Your task to perform on an android device: Clear all items from cart on target.com. Add razer nari to the cart on target.com Image 0: 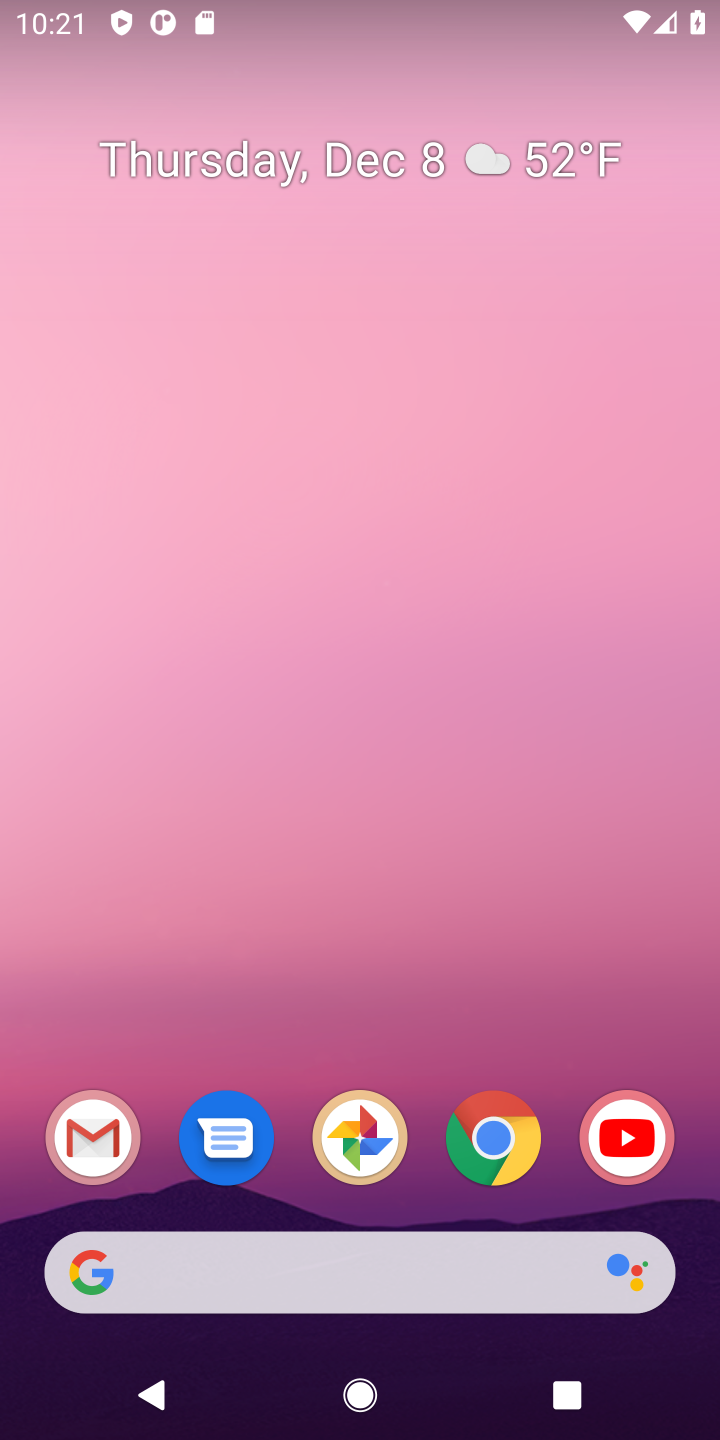
Step 0: click (500, 1131)
Your task to perform on an android device: Clear all items from cart on target.com. Add razer nari to the cart on target.com Image 1: 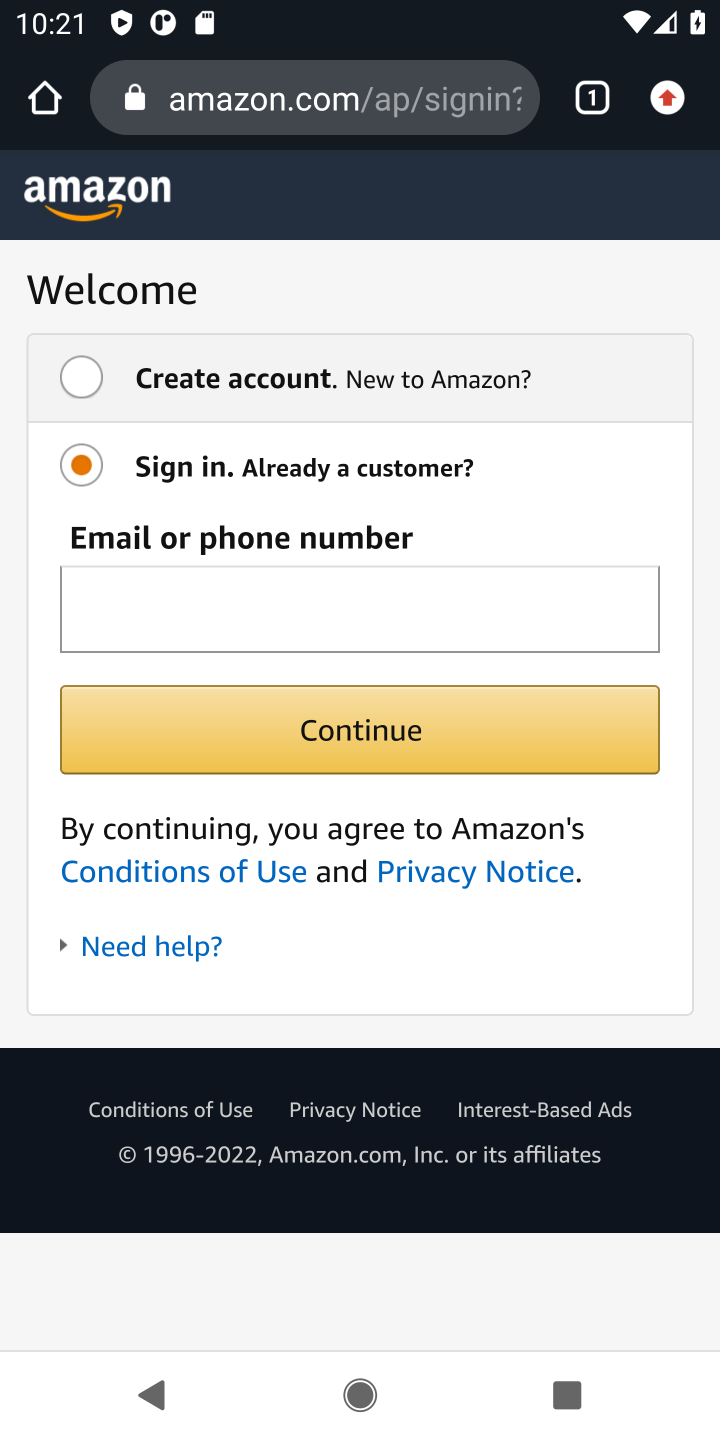
Step 1: click (469, 93)
Your task to perform on an android device: Clear all items from cart on target.com. Add razer nari to the cart on target.com Image 2: 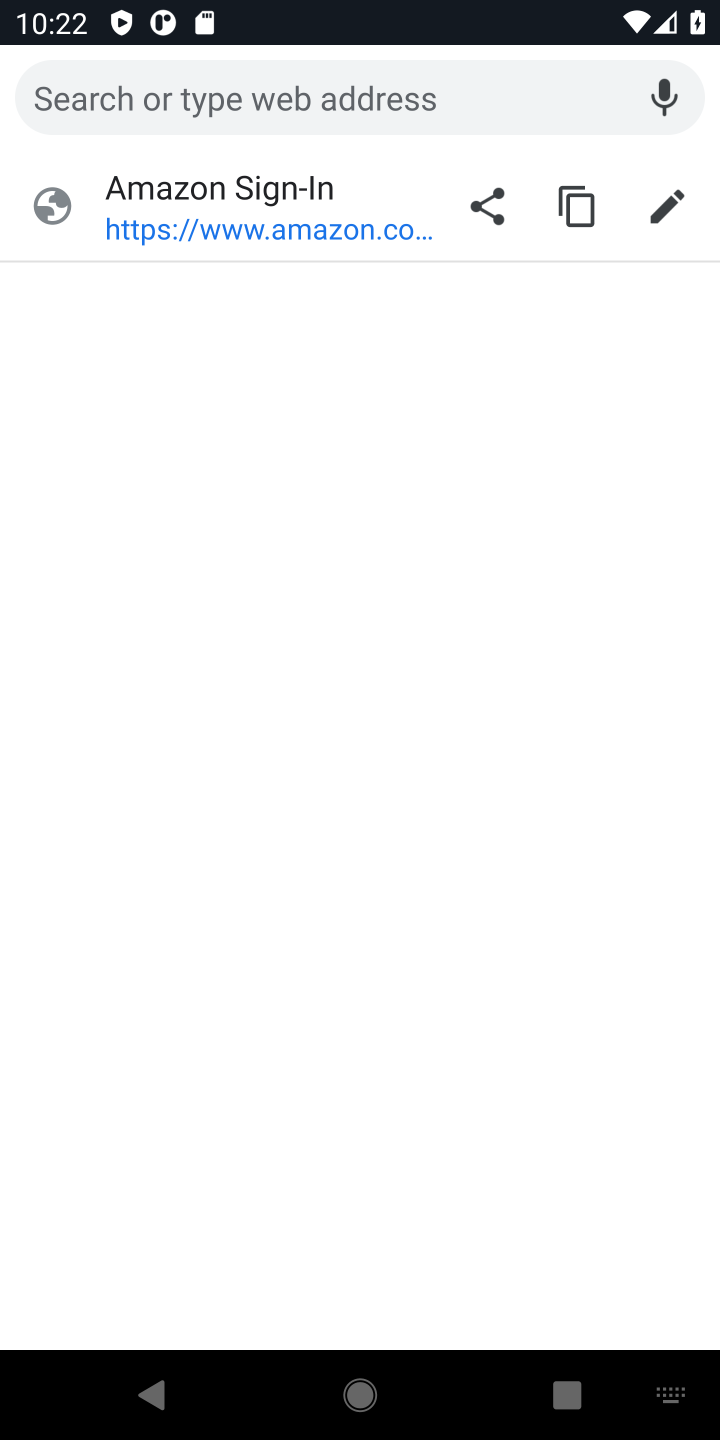
Step 2: type "target"
Your task to perform on an android device: Clear all items from cart on target.com. Add razer nari to the cart on target.com Image 3: 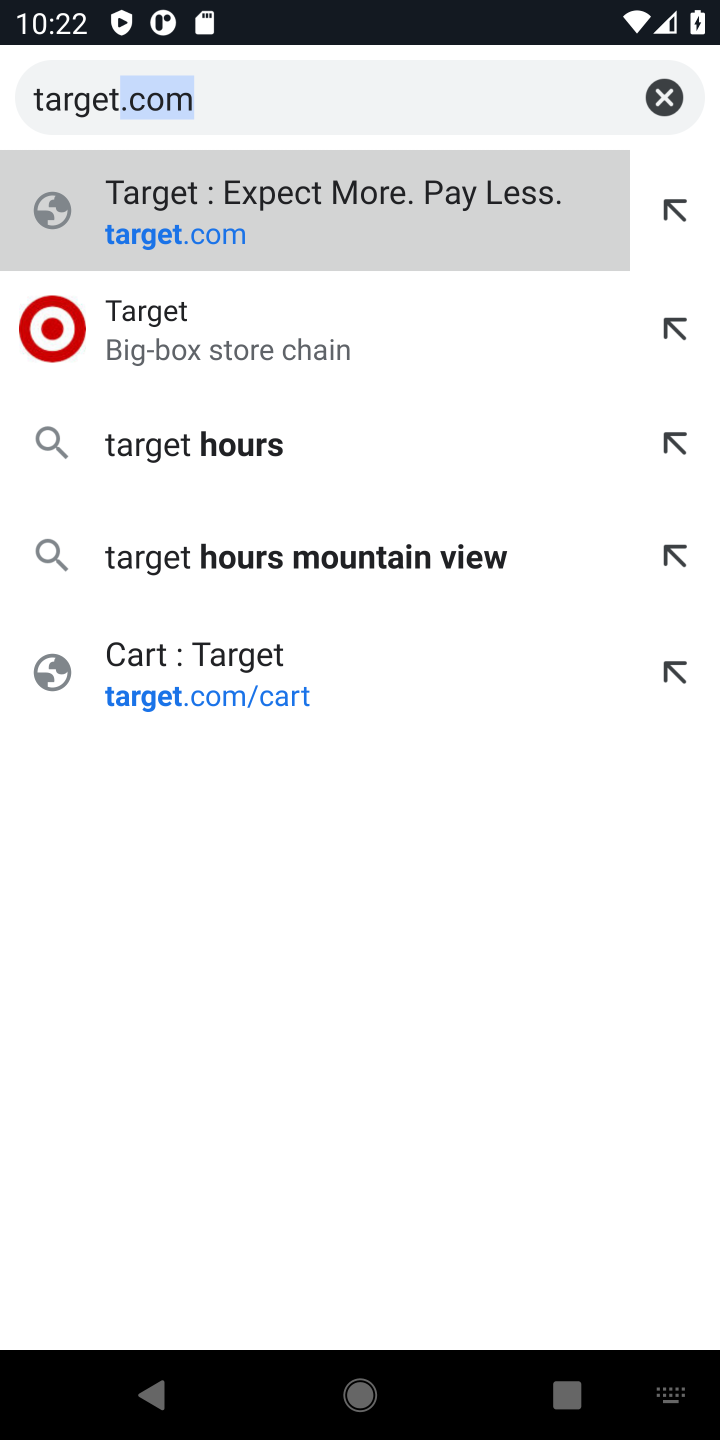
Step 3: click (508, 107)
Your task to perform on an android device: Clear all items from cart on target.com. Add razer nari to the cart on target.com Image 4: 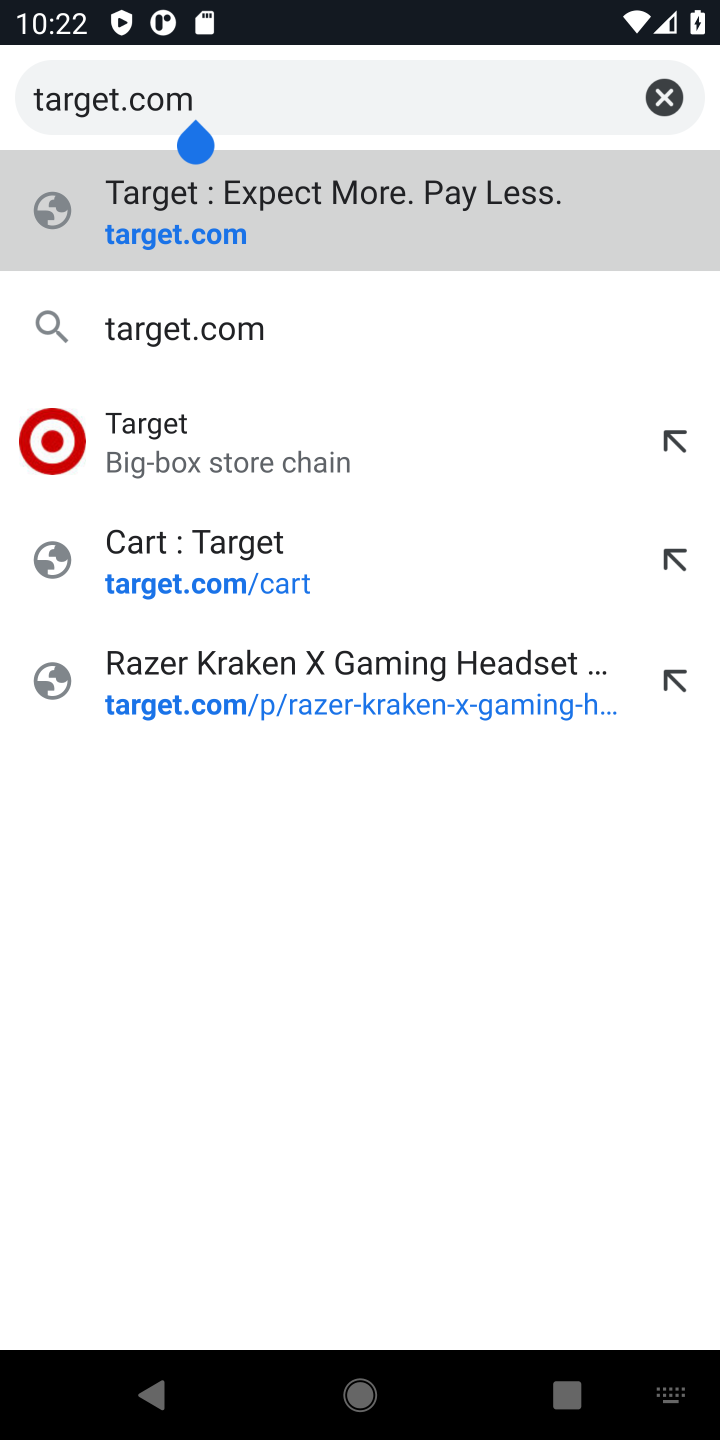
Step 4: click (231, 332)
Your task to perform on an android device: Clear all items from cart on target.com. Add razer nari to the cart on target.com Image 5: 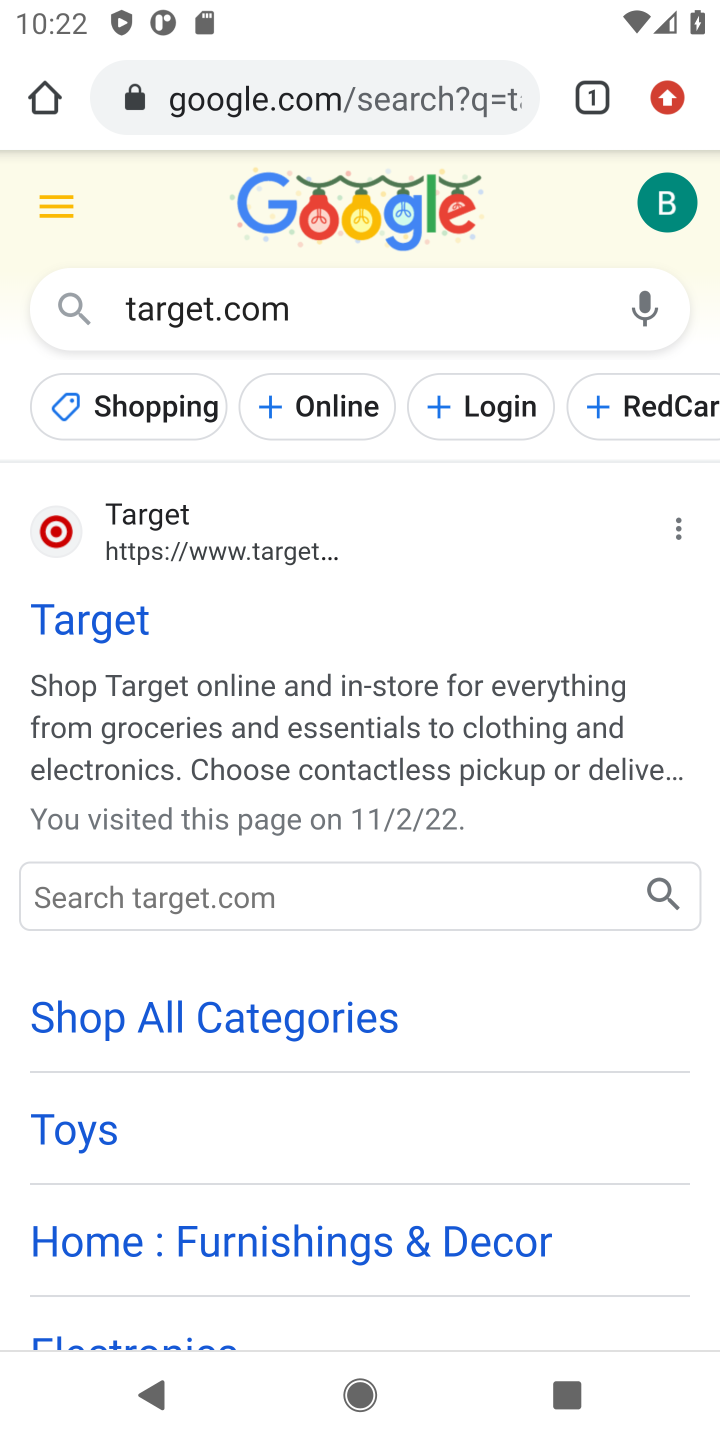
Step 5: click (240, 544)
Your task to perform on an android device: Clear all items from cart on target.com. Add razer nari to the cart on target.com Image 6: 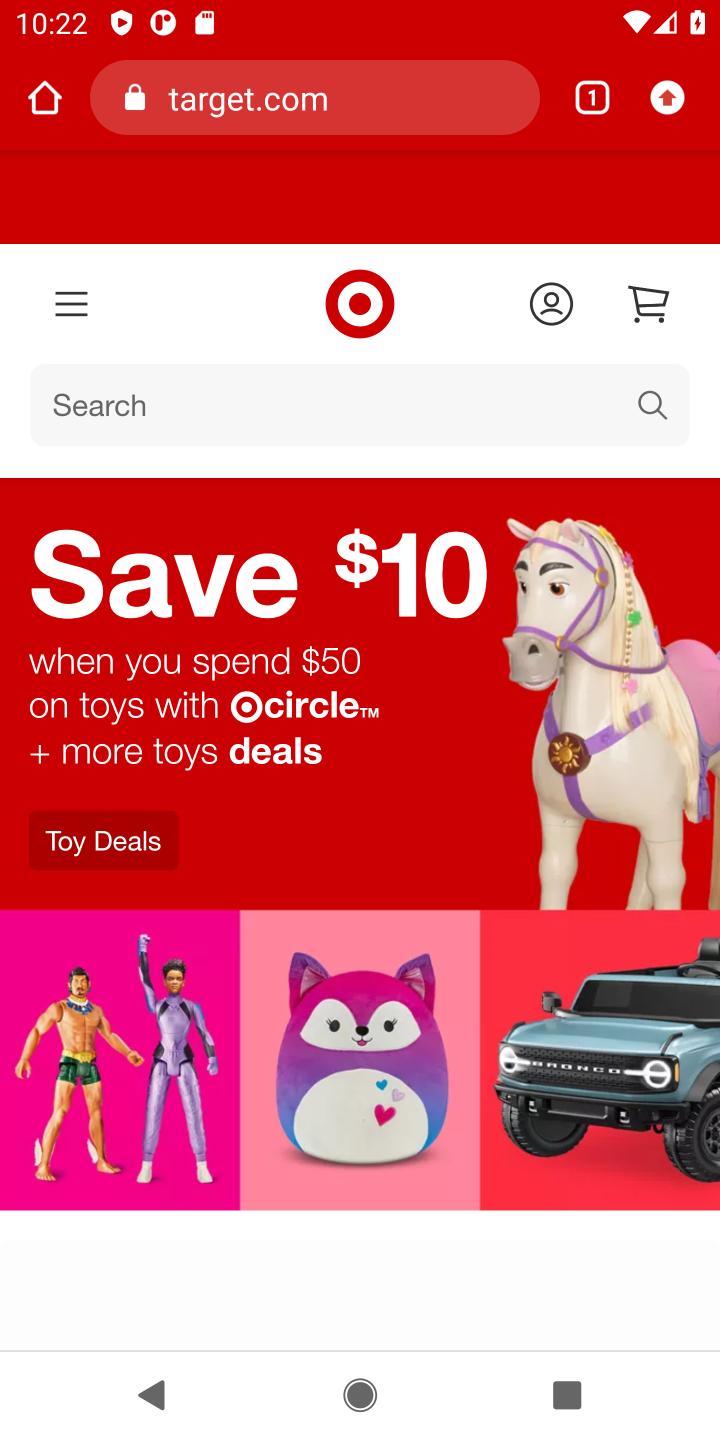
Step 6: click (657, 292)
Your task to perform on an android device: Clear all items from cart on target.com. Add razer nari to the cart on target.com Image 7: 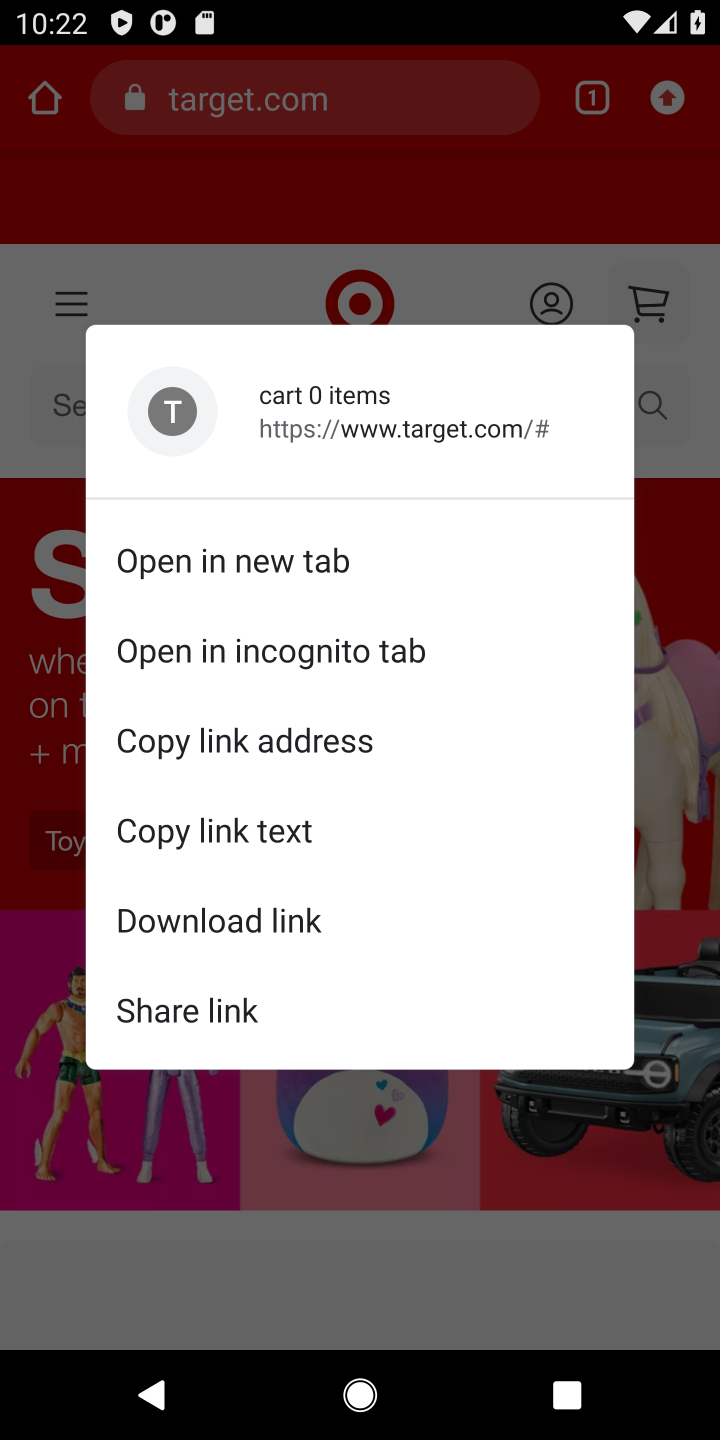
Step 7: click (657, 292)
Your task to perform on an android device: Clear all items from cart on target.com. Add razer nari to the cart on target.com Image 8: 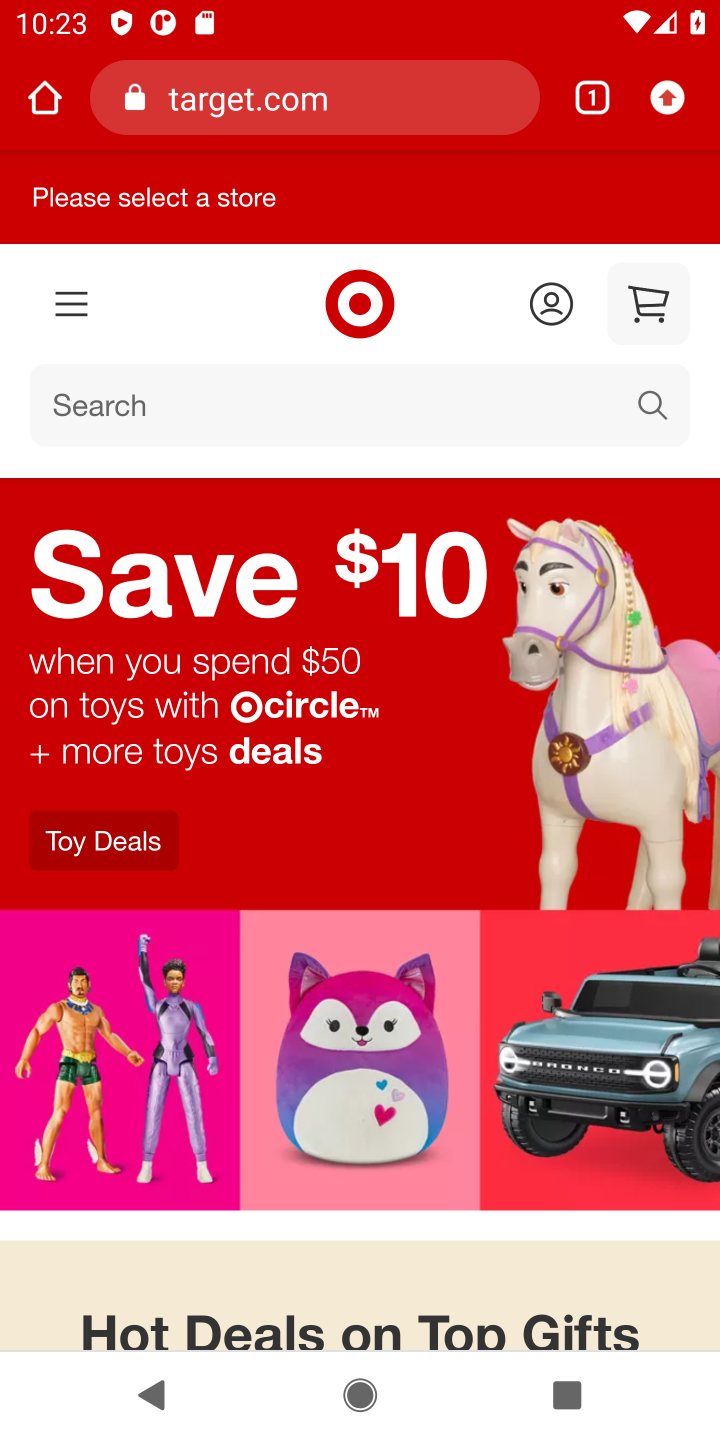
Step 8: click (650, 410)
Your task to perform on an android device: Clear all items from cart on target.com. Add razer nari to the cart on target.com Image 9: 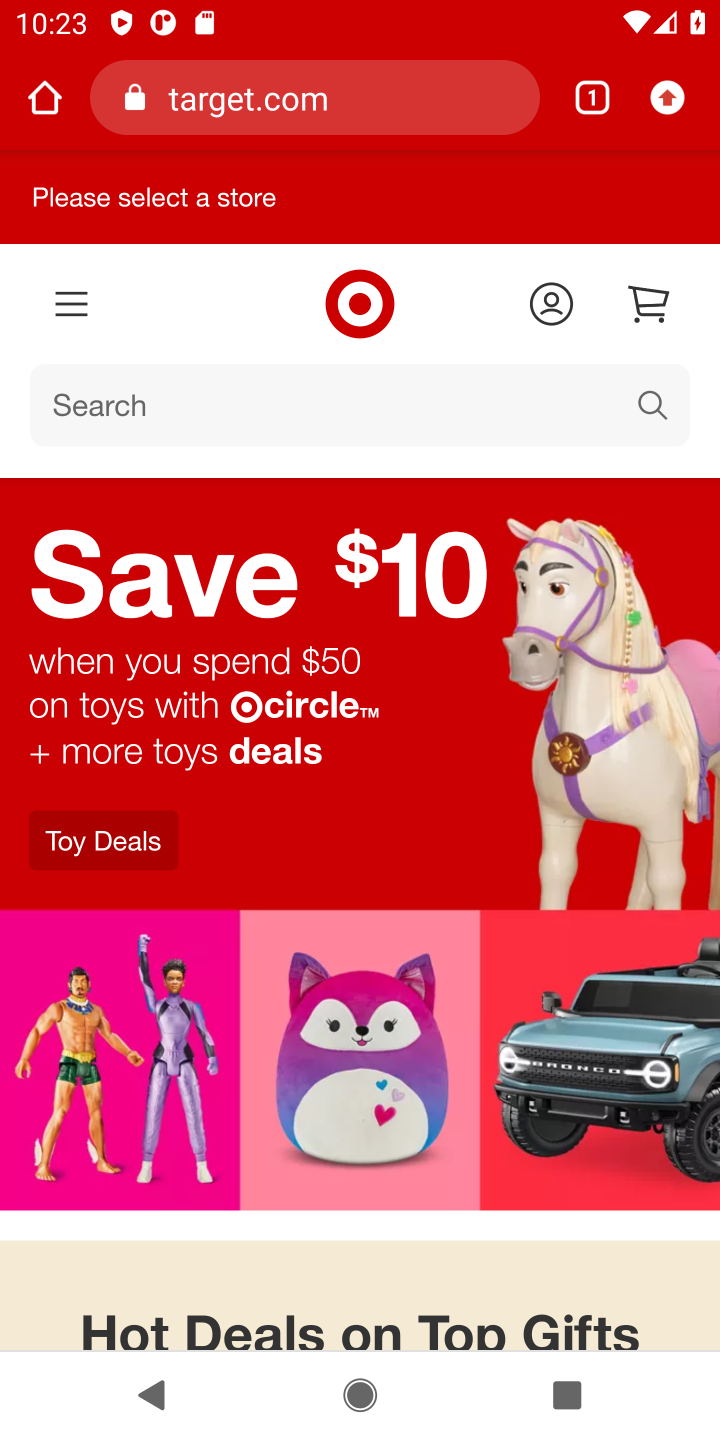
Step 9: click (648, 395)
Your task to perform on an android device: Clear all items from cart on target.com. Add razer nari to the cart on target.com Image 10: 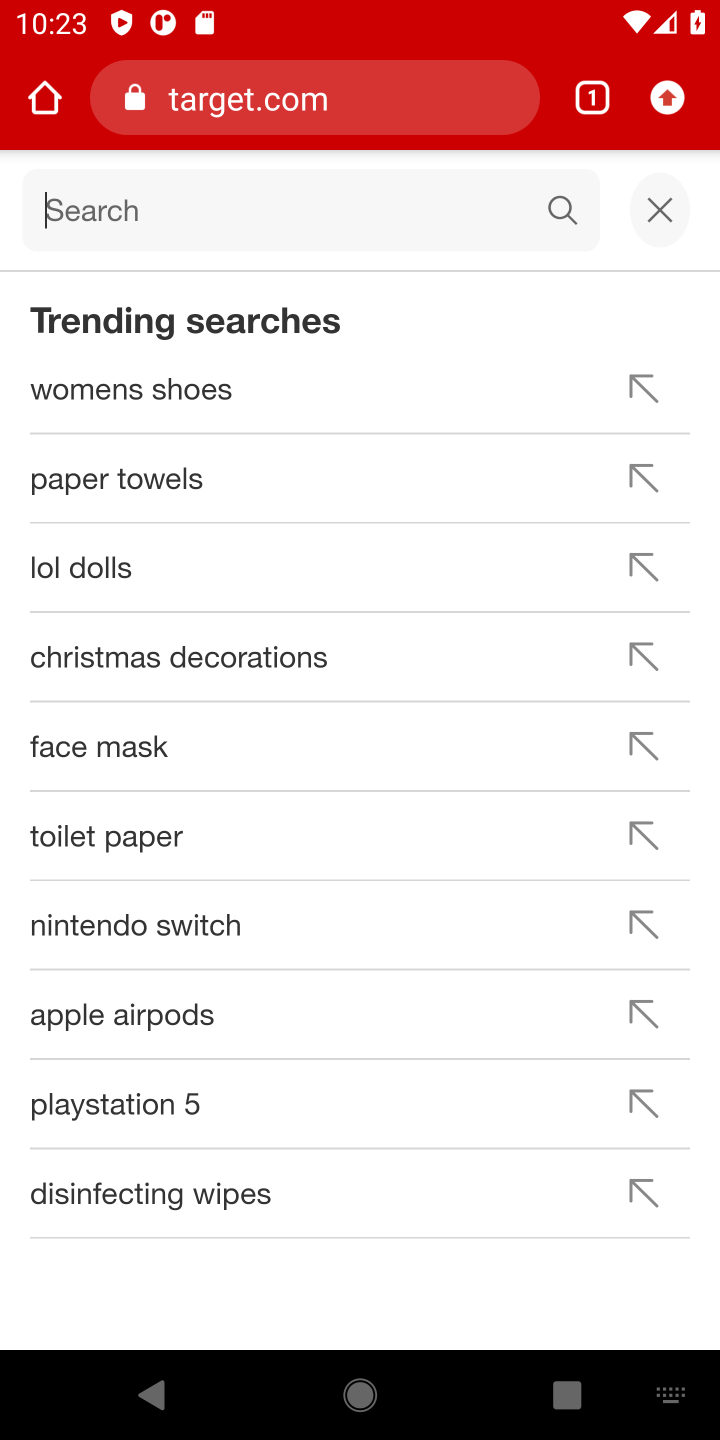
Step 10: type "razer nari"
Your task to perform on an android device: Clear all items from cart on target.com. Add razer nari to the cart on target.com Image 11: 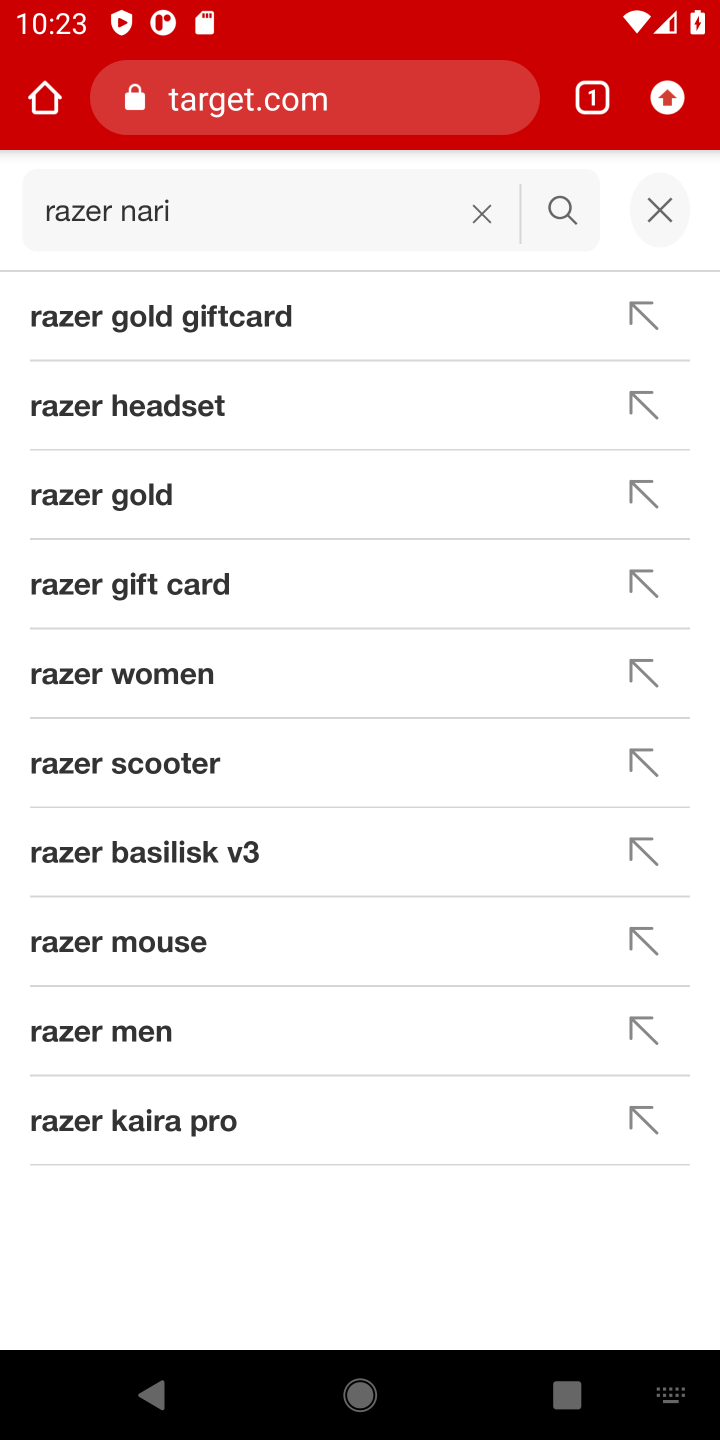
Step 11: click (568, 208)
Your task to perform on an android device: Clear all items from cart on target.com. Add razer nari to the cart on target.com Image 12: 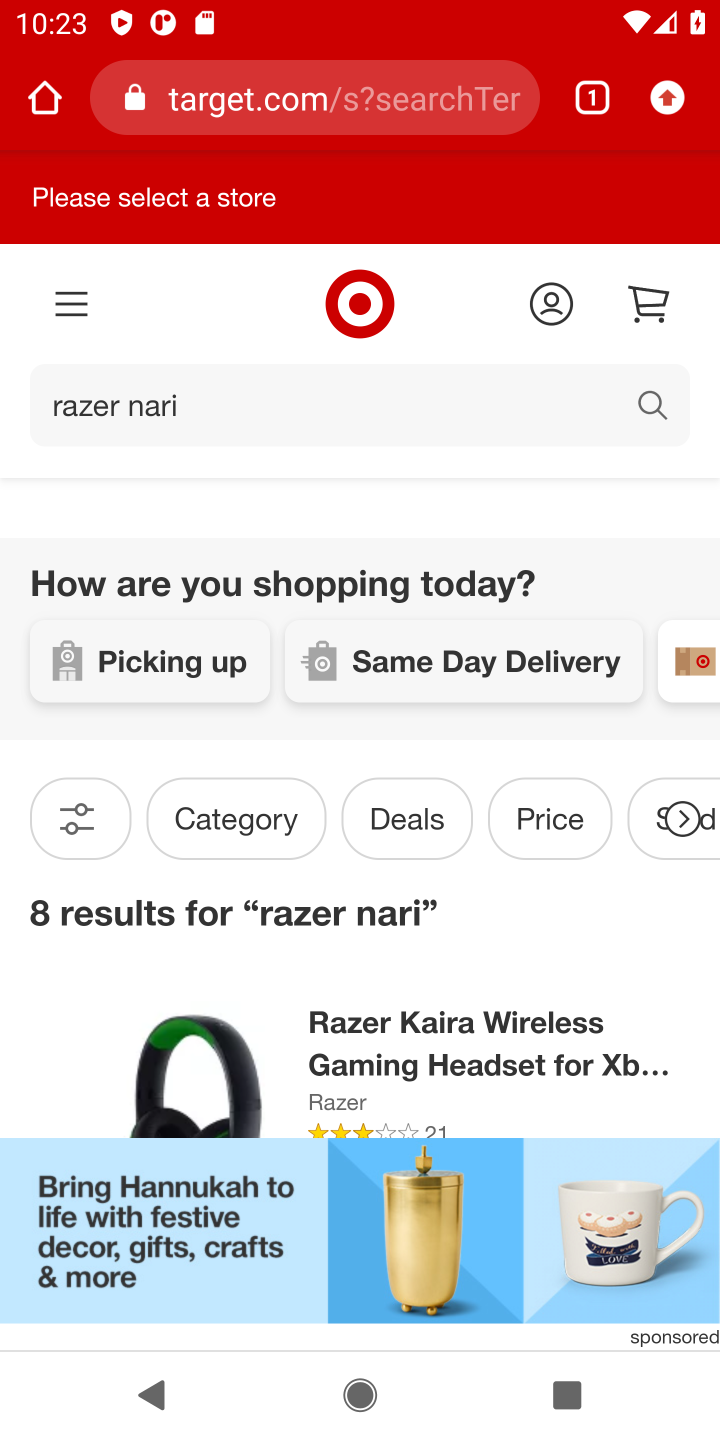
Step 12: task complete